Your task to perform on an android device: check the backup settings in the google photos Image 0: 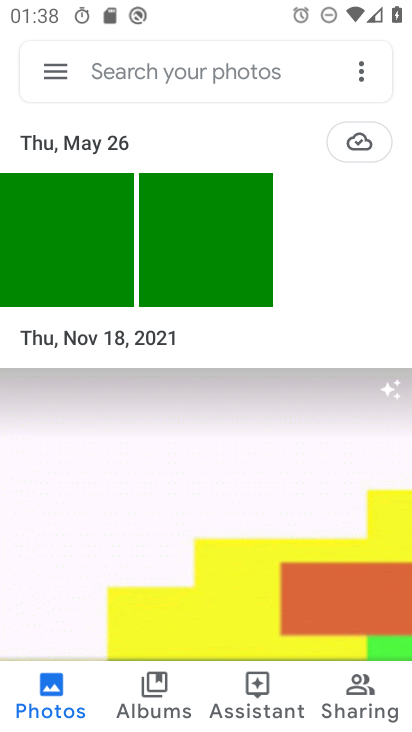
Step 0: click (58, 75)
Your task to perform on an android device: check the backup settings in the google photos Image 1: 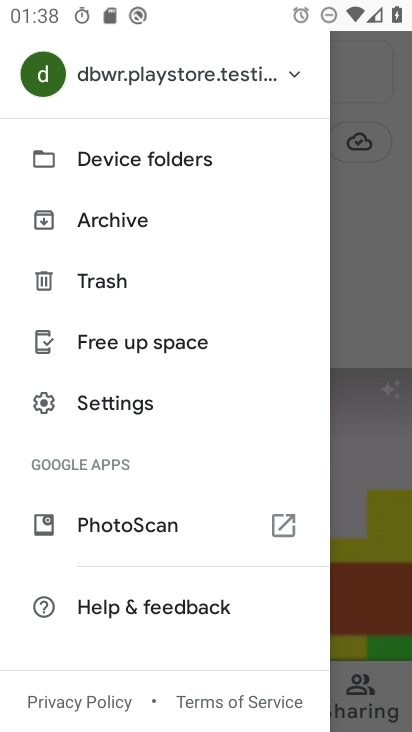
Step 1: drag from (192, 526) to (213, 198)
Your task to perform on an android device: check the backup settings in the google photos Image 2: 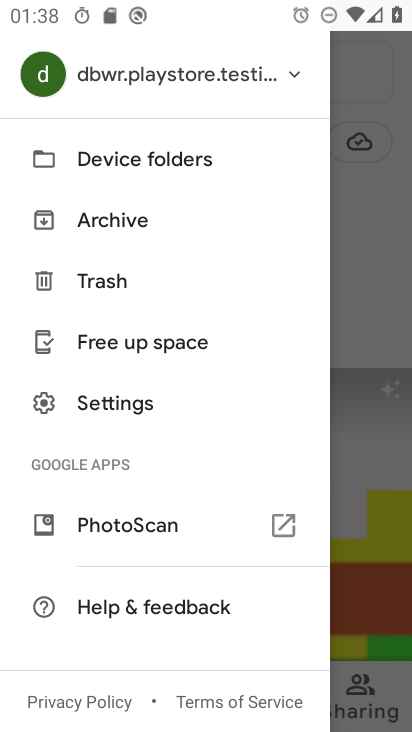
Step 2: drag from (200, 249) to (166, 698)
Your task to perform on an android device: check the backup settings in the google photos Image 3: 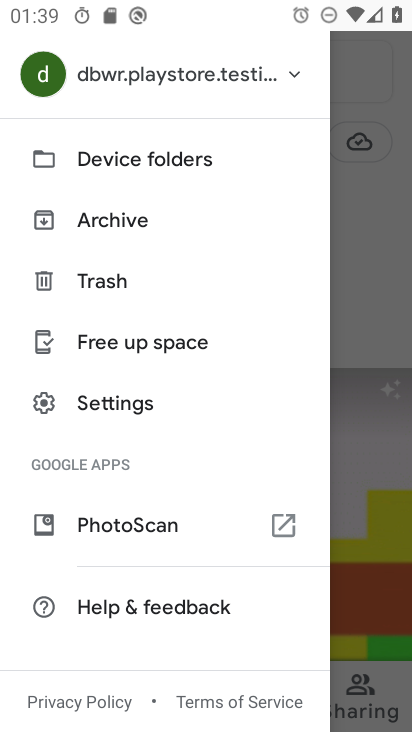
Step 3: click (129, 403)
Your task to perform on an android device: check the backup settings in the google photos Image 4: 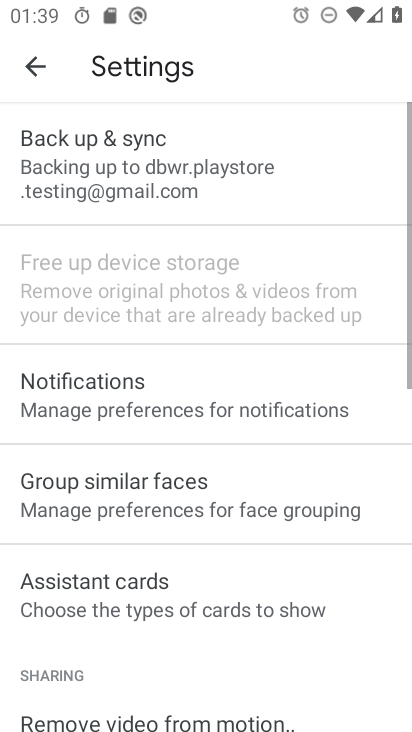
Step 4: click (169, 160)
Your task to perform on an android device: check the backup settings in the google photos Image 5: 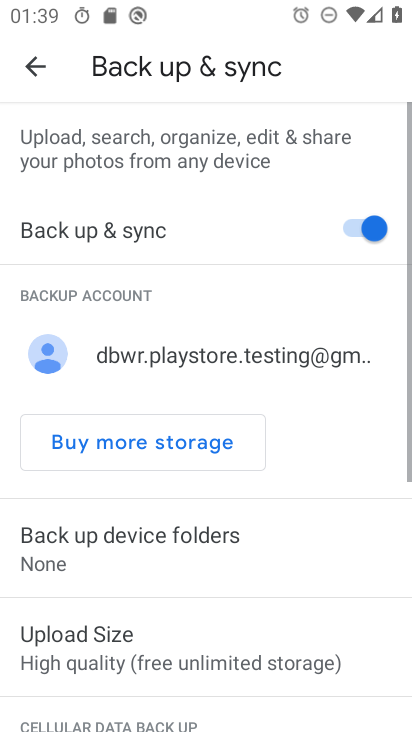
Step 5: task complete